Your task to perform on an android device: Search for pizza restaurants on Maps Image 0: 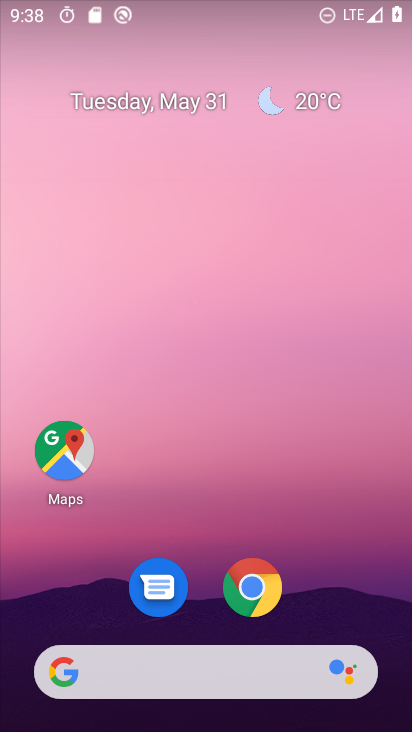
Step 0: click (67, 467)
Your task to perform on an android device: Search for pizza restaurants on Maps Image 1: 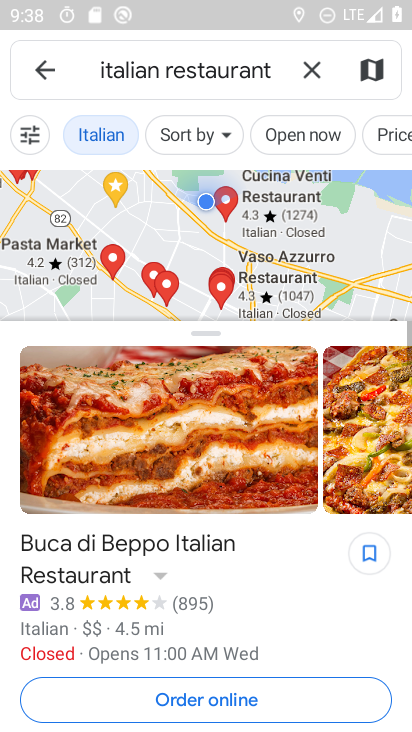
Step 1: click (311, 73)
Your task to perform on an android device: Search for pizza restaurants on Maps Image 2: 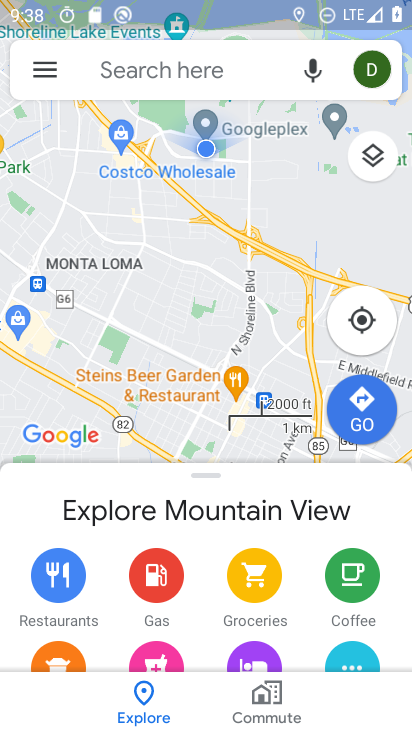
Step 2: click (221, 61)
Your task to perform on an android device: Search for pizza restaurants on Maps Image 3: 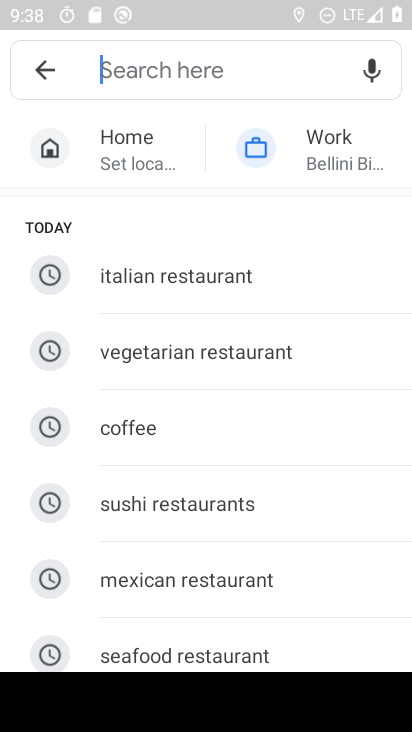
Step 3: drag from (116, 650) to (194, 212)
Your task to perform on an android device: Search for pizza restaurants on Maps Image 4: 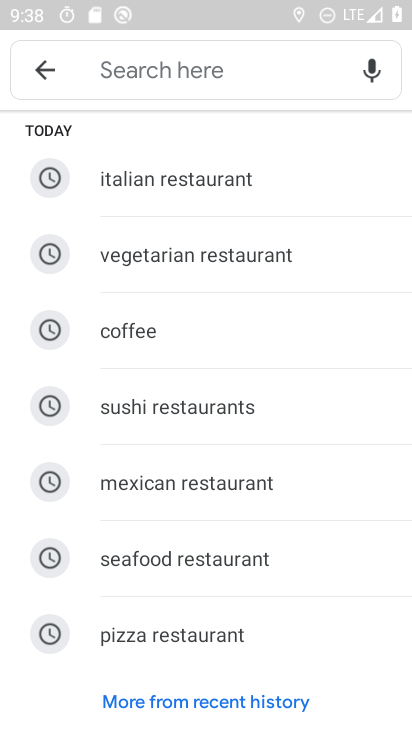
Step 4: click (145, 623)
Your task to perform on an android device: Search for pizza restaurants on Maps Image 5: 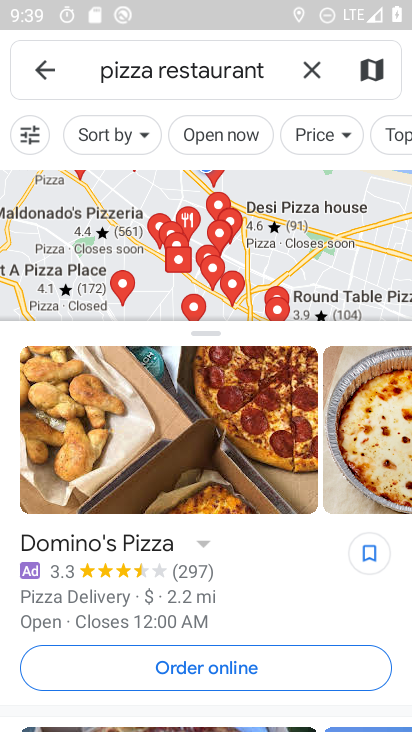
Step 5: task complete